Your task to perform on an android device: find which apps use the phone's location Image 0: 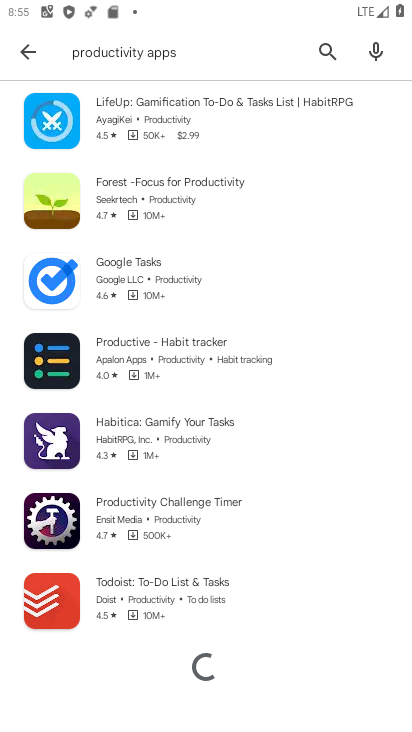
Step 0: press home button
Your task to perform on an android device: find which apps use the phone's location Image 1: 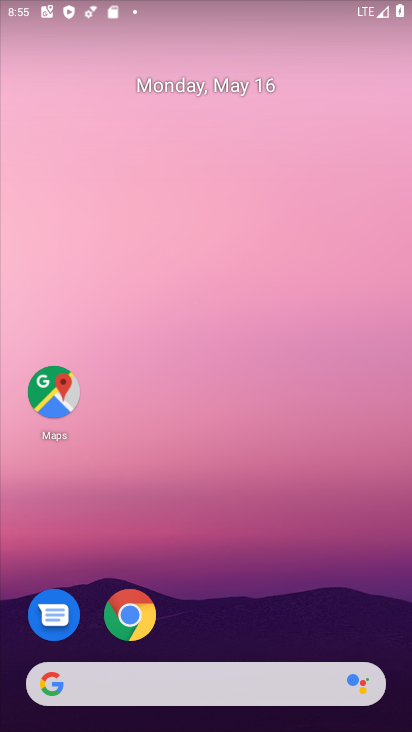
Step 1: drag from (218, 570) to (142, 135)
Your task to perform on an android device: find which apps use the phone's location Image 2: 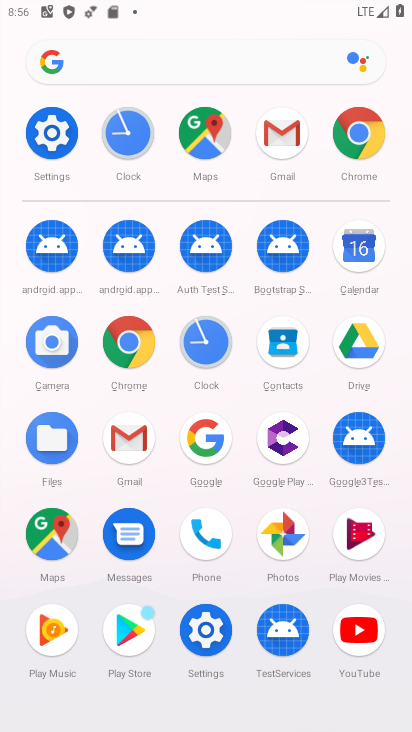
Step 2: click (66, 168)
Your task to perform on an android device: find which apps use the phone's location Image 3: 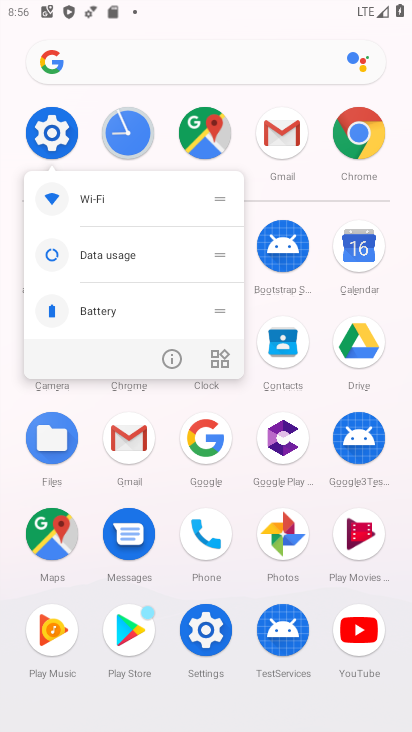
Step 3: click (51, 133)
Your task to perform on an android device: find which apps use the phone's location Image 4: 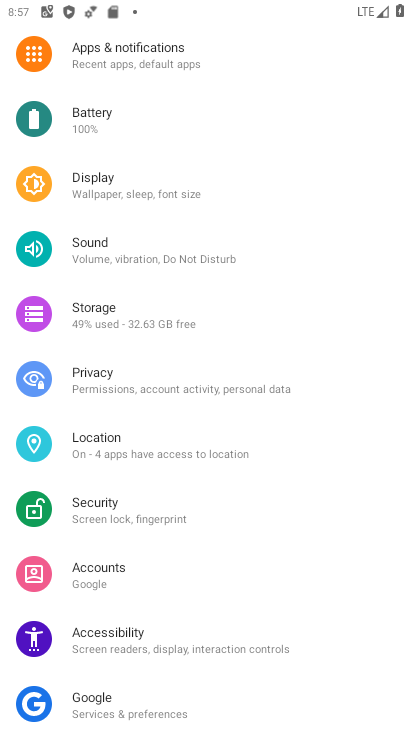
Step 4: drag from (158, 203) to (228, 516)
Your task to perform on an android device: find which apps use the phone's location Image 5: 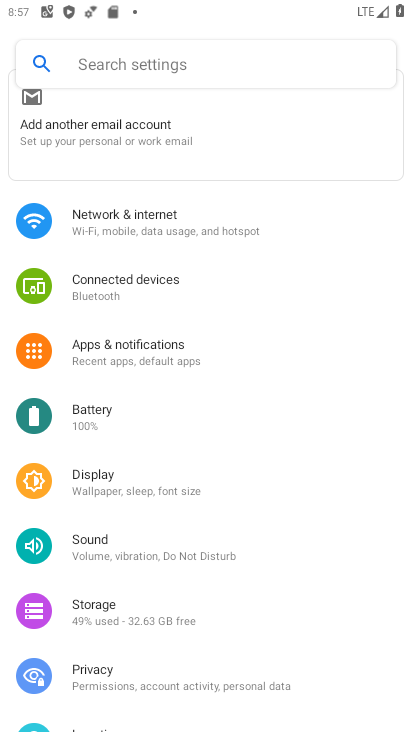
Step 5: drag from (214, 607) to (170, 186)
Your task to perform on an android device: find which apps use the phone's location Image 6: 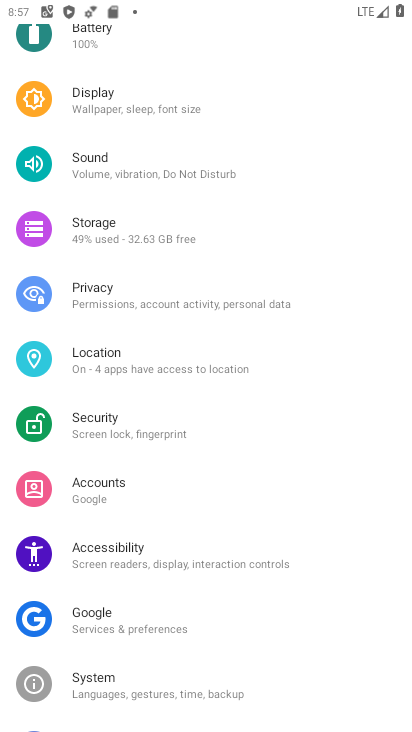
Step 6: click (186, 362)
Your task to perform on an android device: find which apps use the phone's location Image 7: 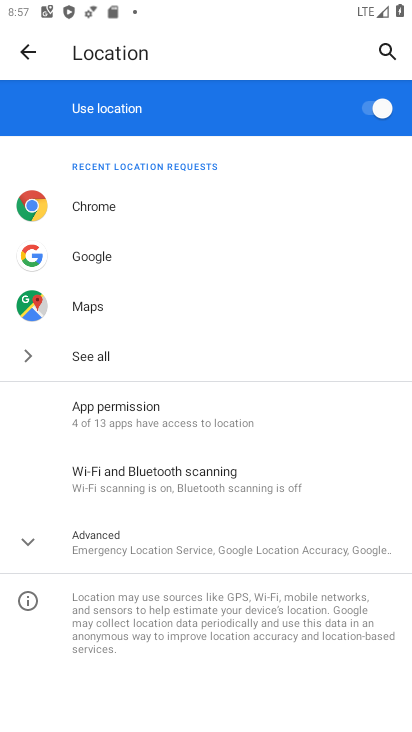
Step 7: click (173, 409)
Your task to perform on an android device: find which apps use the phone's location Image 8: 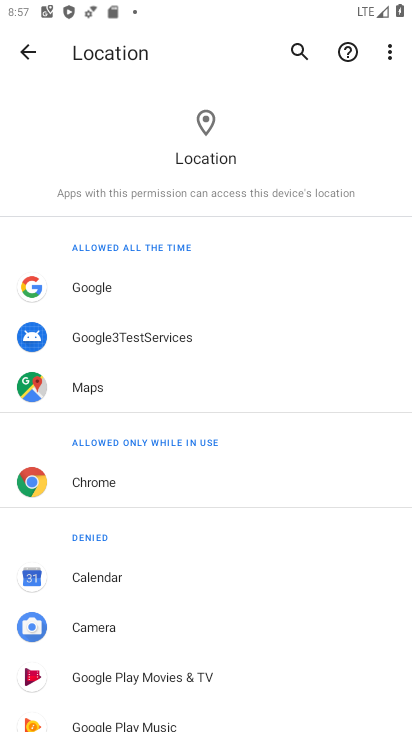
Step 8: task complete